Your task to perform on an android device: Open privacy settings Image 0: 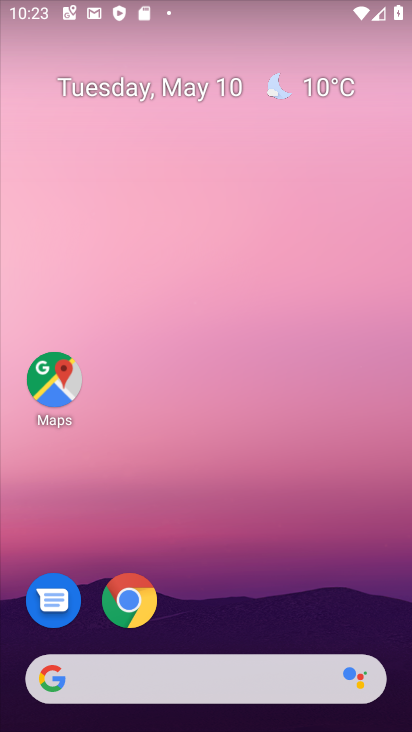
Step 0: drag from (241, 579) to (230, 17)
Your task to perform on an android device: Open privacy settings Image 1: 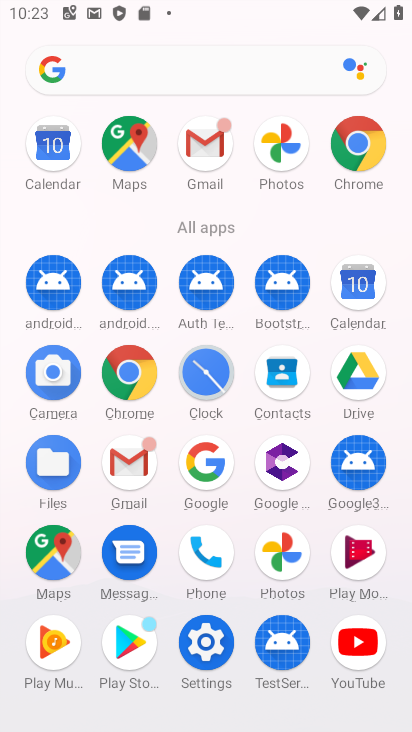
Step 1: click (130, 365)
Your task to perform on an android device: Open privacy settings Image 2: 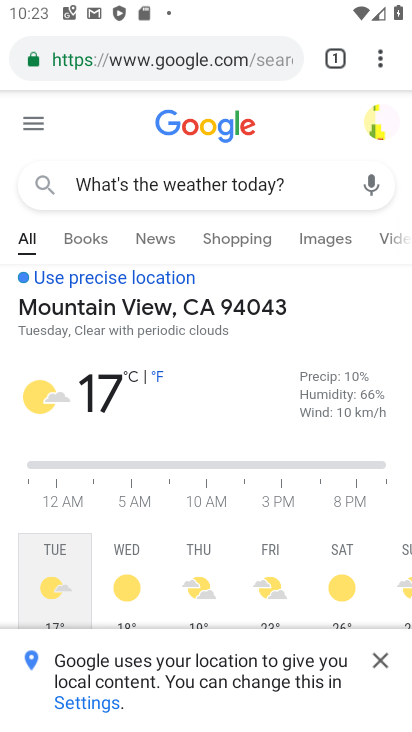
Step 2: drag from (376, 52) to (188, 619)
Your task to perform on an android device: Open privacy settings Image 3: 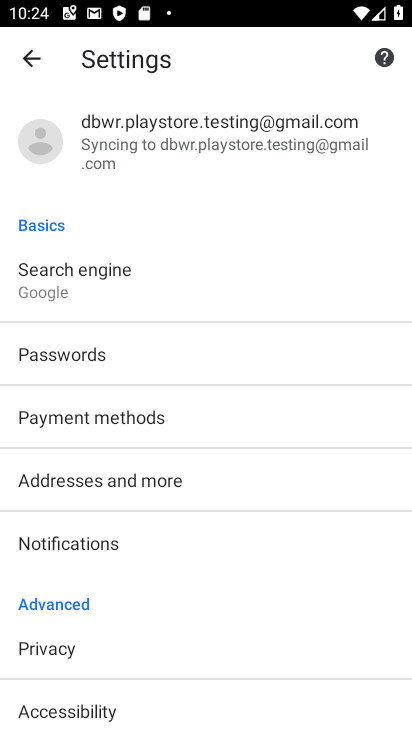
Step 3: click (95, 661)
Your task to perform on an android device: Open privacy settings Image 4: 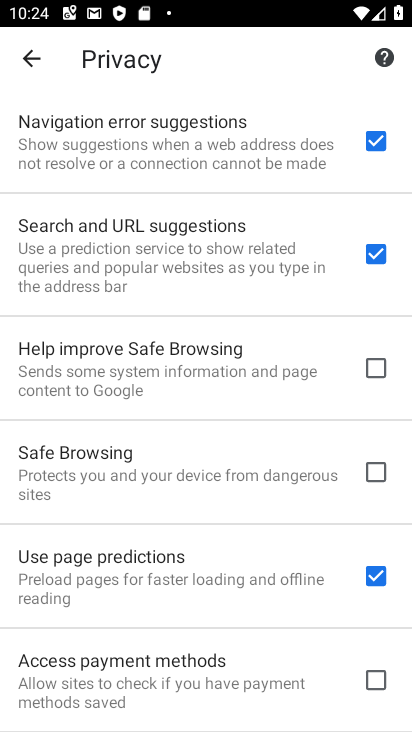
Step 4: task complete